Your task to perform on an android device: Open the web browser Image 0: 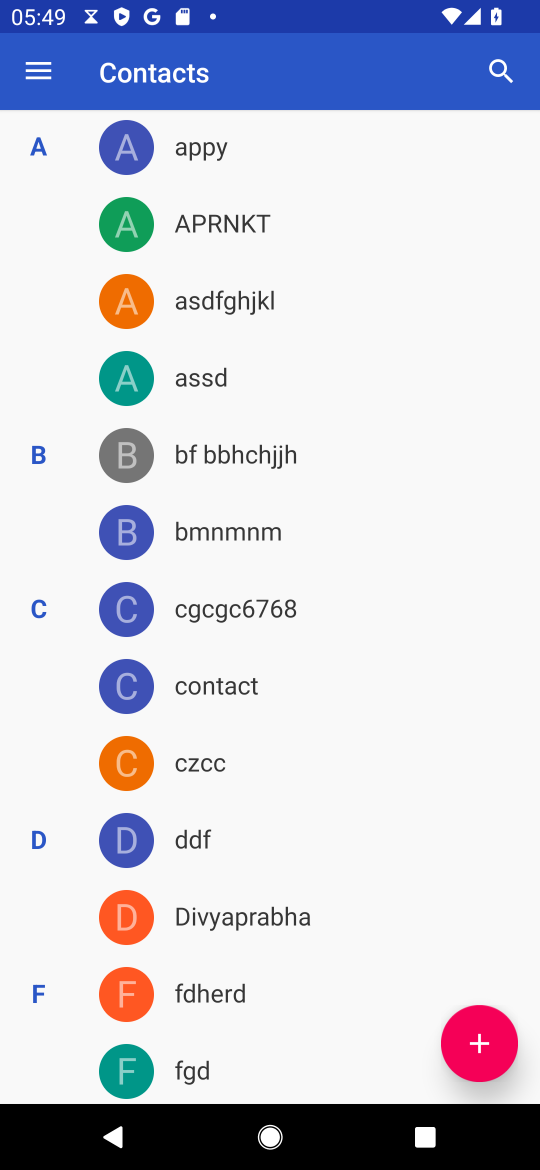
Step 0: press home button
Your task to perform on an android device: Open the web browser Image 1: 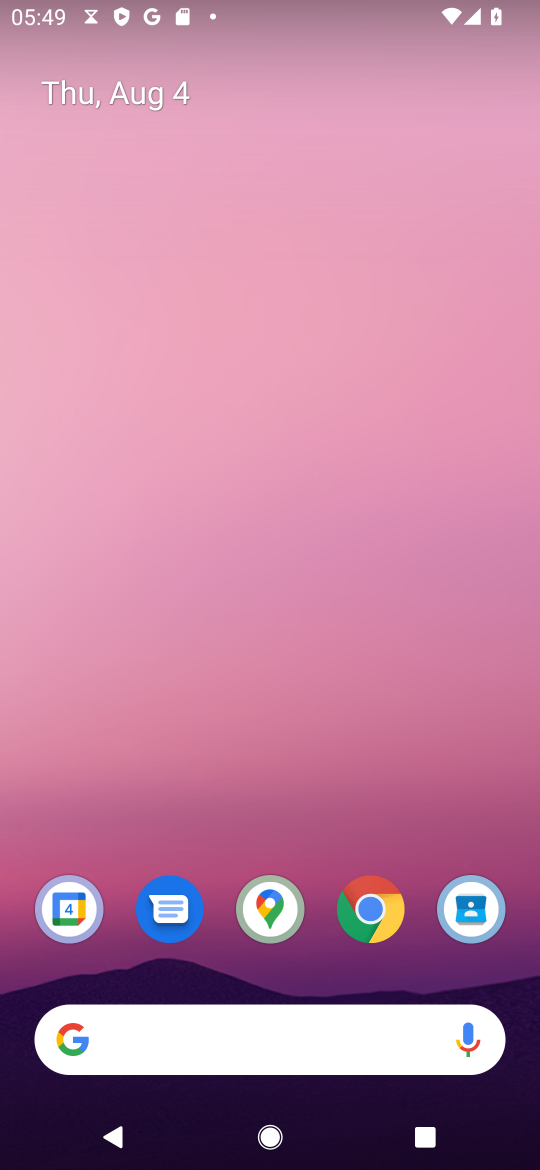
Step 1: click (372, 912)
Your task to perform on an android device: Open the web browser Image 2: 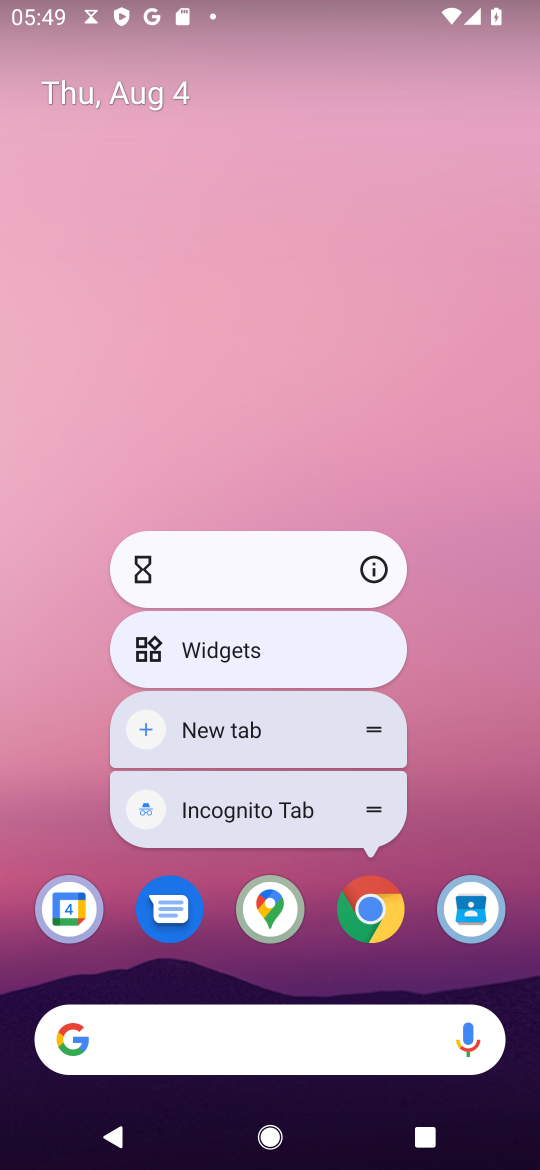
Step 2: click (372, 912)
Your task to perform on an android device: Open the web browser Image 3: 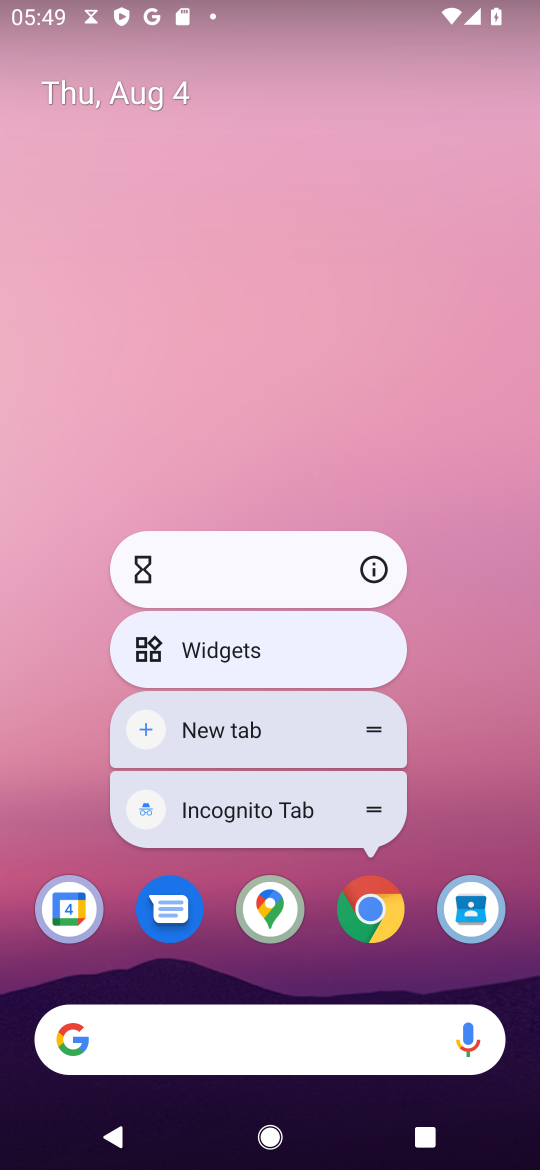
Step 3: click (372, 913)
Your task to perform on an android device: Open the web browser Image 4: 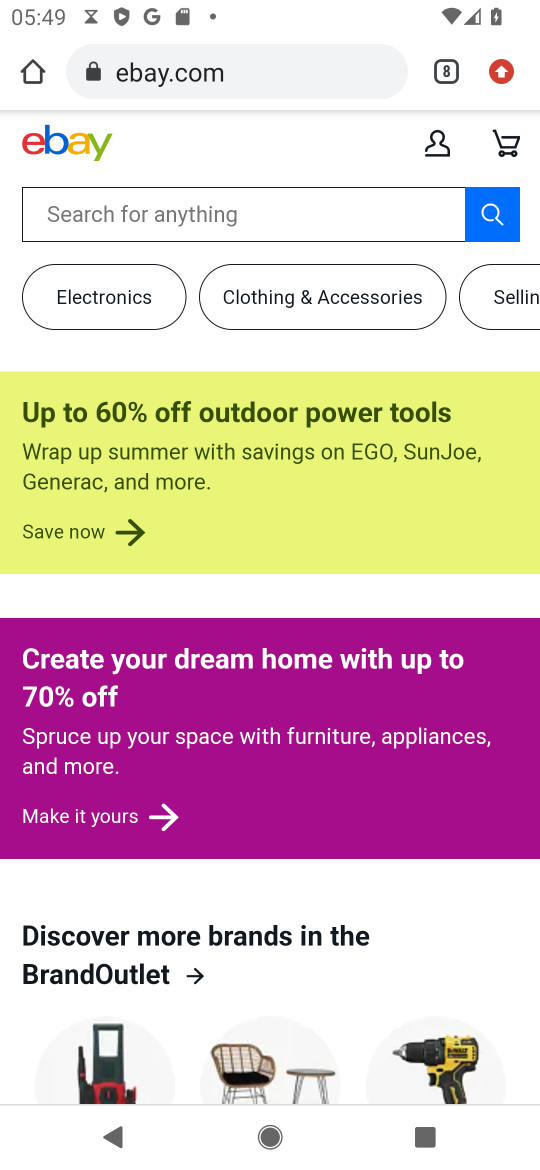
Step 4: task complete